Your task to perform on an android device: What is the news today? Image 0: 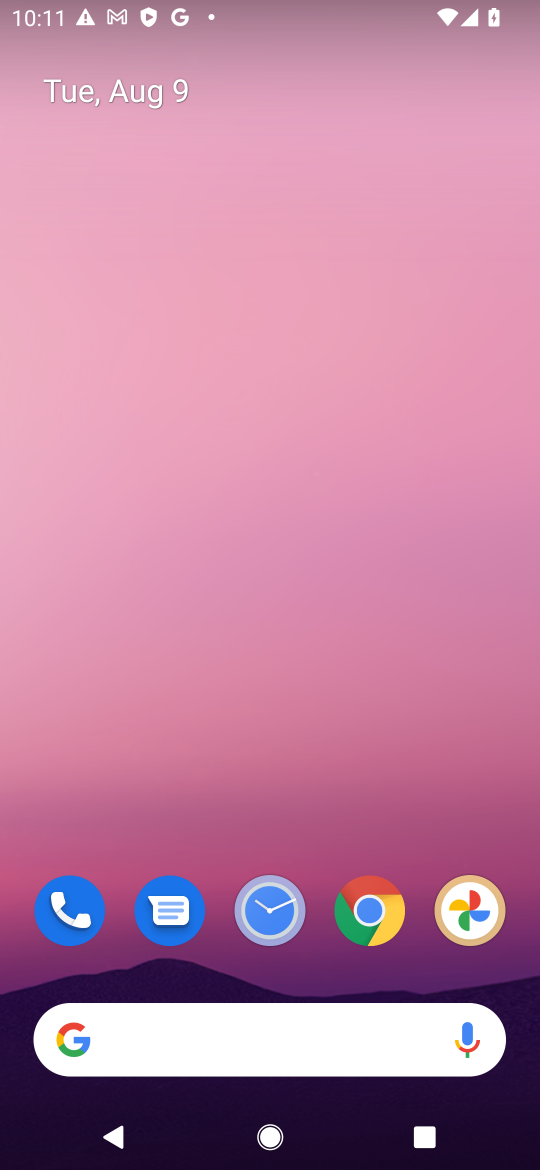
Step 0: click (199, 1050)
Your task to perform on an android device: What is the news today? Image 1: 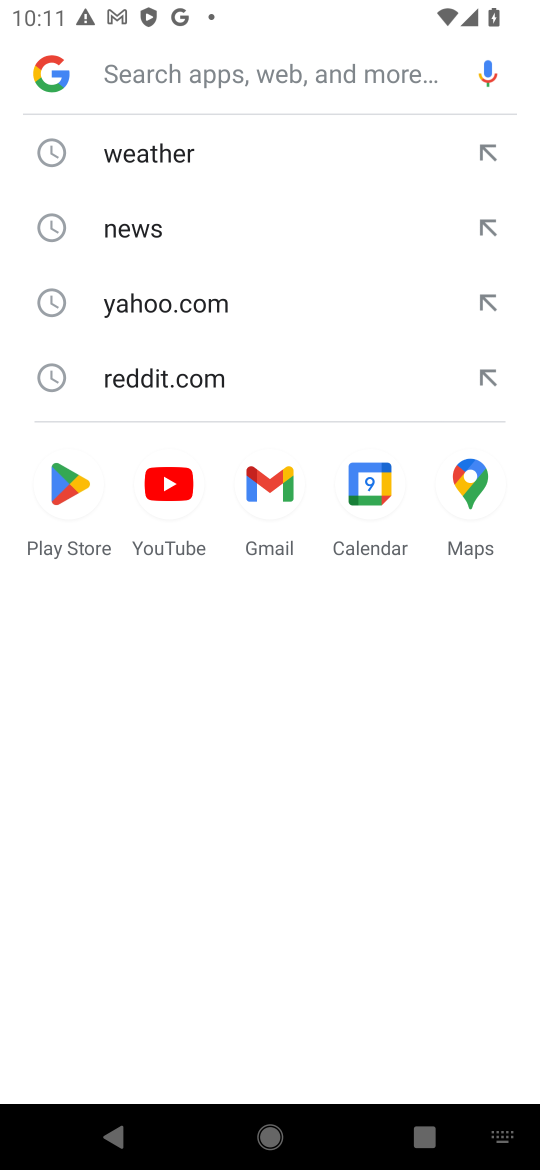
Step 1: click (168, 224)
Your task to perform on an android device: What is the news today? Image 2: 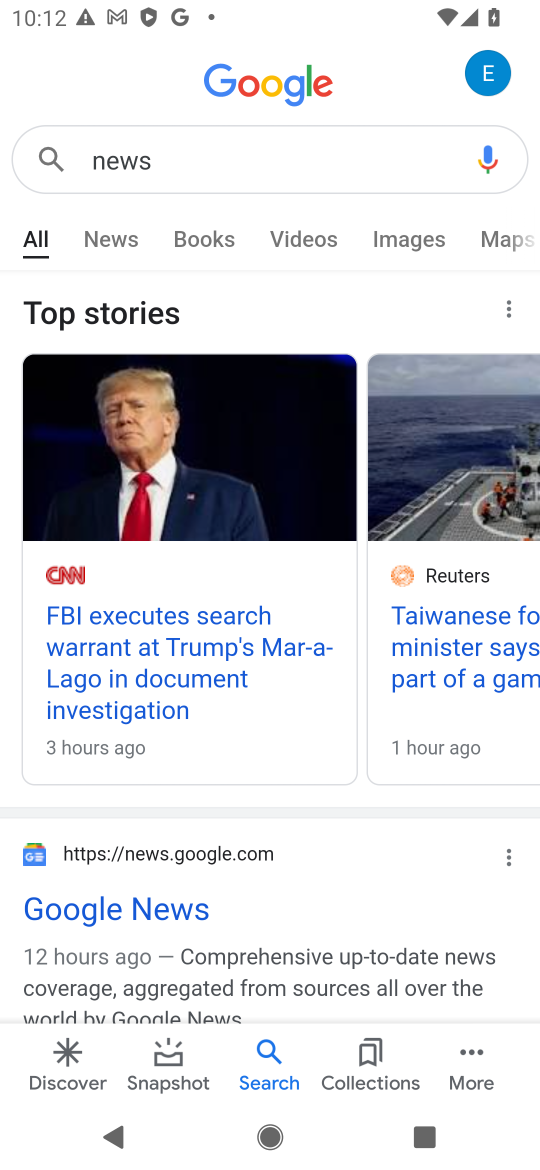
Step 2: task complete